Your task to perform on an android device: Set the phone to "Do not disturb". Image 0: 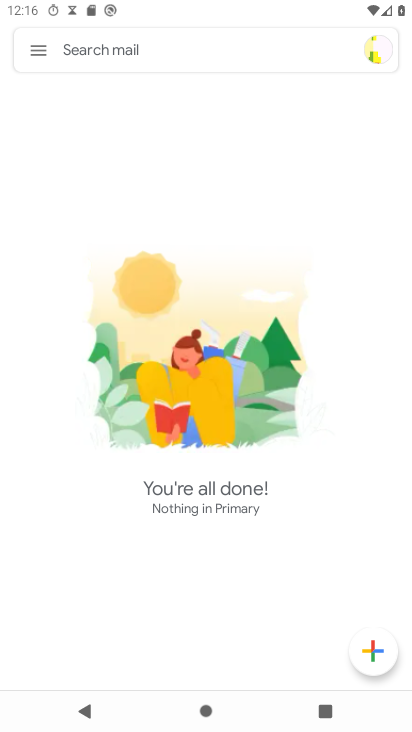
Step 0: press home button
Your task to perform on an android device: Set the phone to "Do not disturb". Image 1: 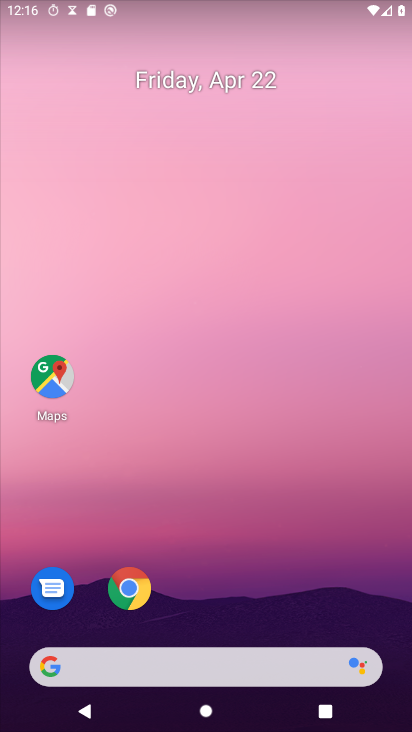
Step 1: drag from (228, 623) to (315, 62)
Your task to perform on an android device: Set the phone to "Do not disturb". Image 2: 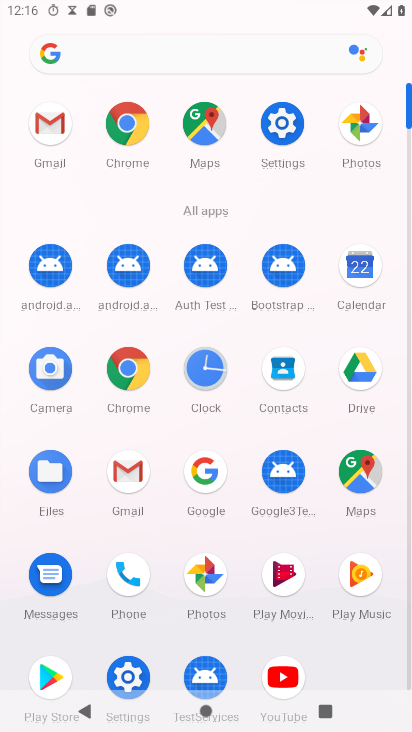
Step 2: click (291, 130)
Your task to perform on an android device: Set the phone to "Do not disturb". Image 3: 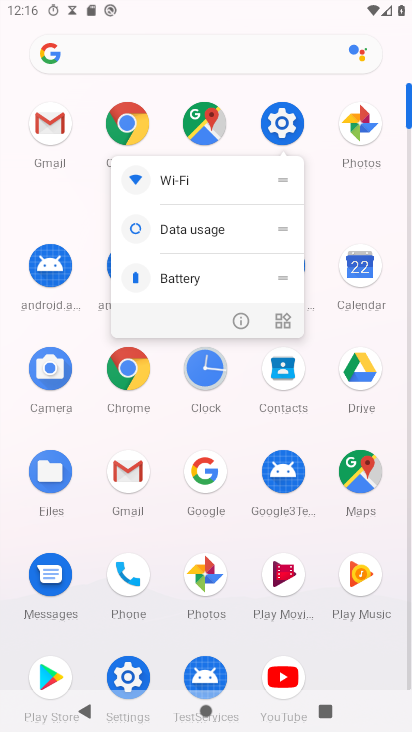
Step 3: click (291, 130)
Your task to perform on an android device: Set the phone to "Do not disturb". Image 4: 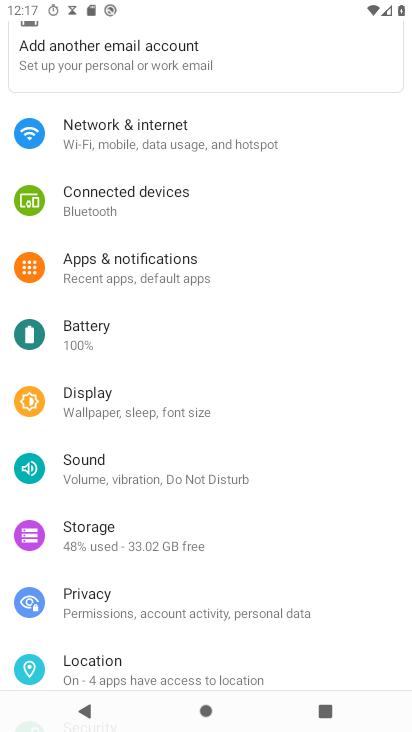
Step 4: click (168, 465)
Your task to perform on an android device: Set the phone to "Do not disturb". Image 5: 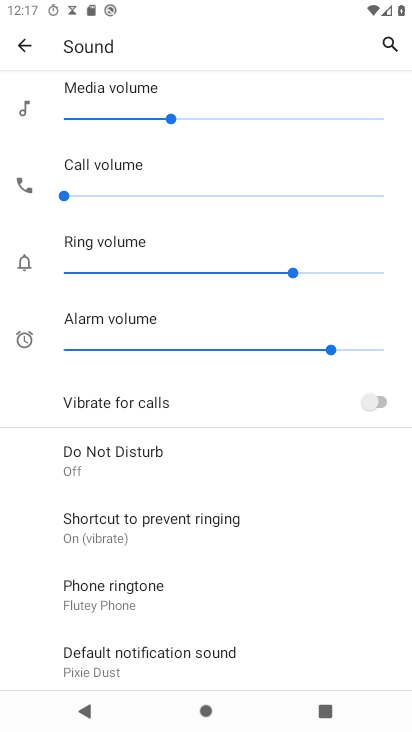
Step 5: click (148, 460)
Your task to perform on an android device: Set the phone to "Do not disturb". Image 6: 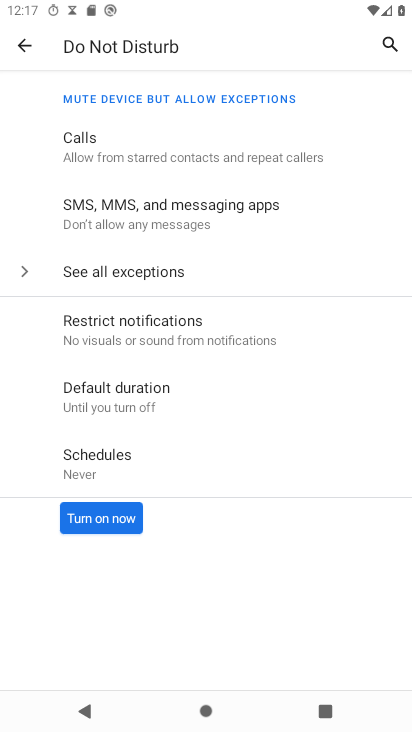
Step 6: click (115, 506)
Your task to perform on an android device: Set the phone to "Do not disturb". Image 7: 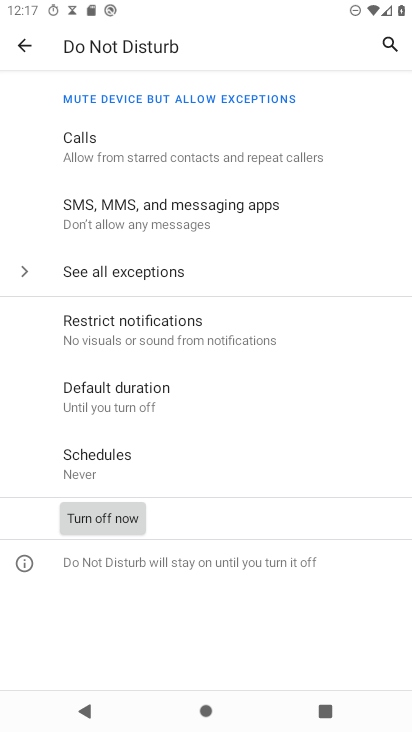
Step 7: task complete